Your task to perform on an android device: Open the stopwatch Image 0: 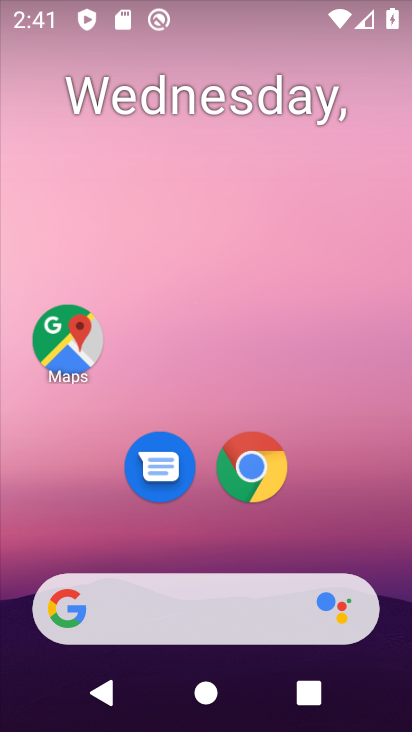
Step 0: drag from (134, 586) to (256, 179)
Your task to perform on an android device: Open the stopwatch Image 1: 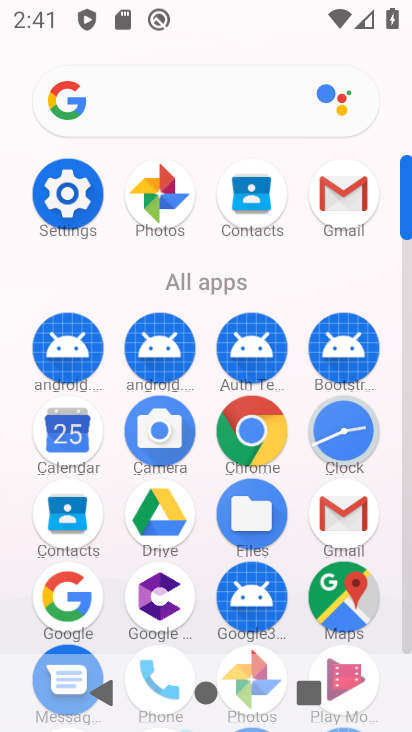
Step 1: drag from (146, 524) to (194, 330)
Your task to perform on an android device: Open the stopwatch Image 2: 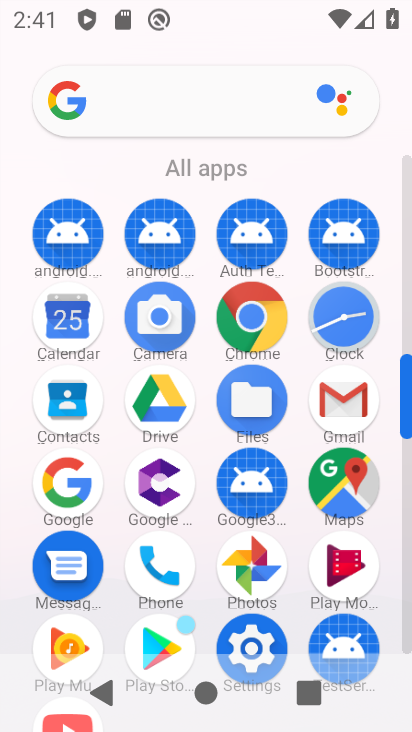
Step 2: click (343, 321)
Your task to perform on an android device: Open the stopwatch Image 3: 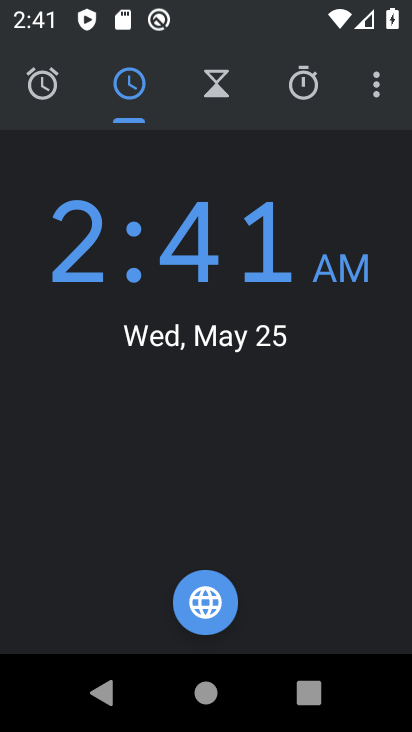
Step 3: click (307, 89)
Your task to perform on an android device: Open the stopwatch Image 4: 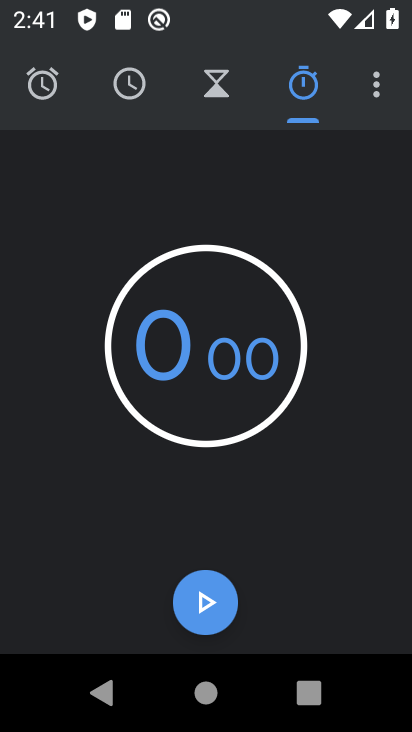
Step 4: task complete